Your task to perform on an android device: Open Chrome and go to settings Image 0: 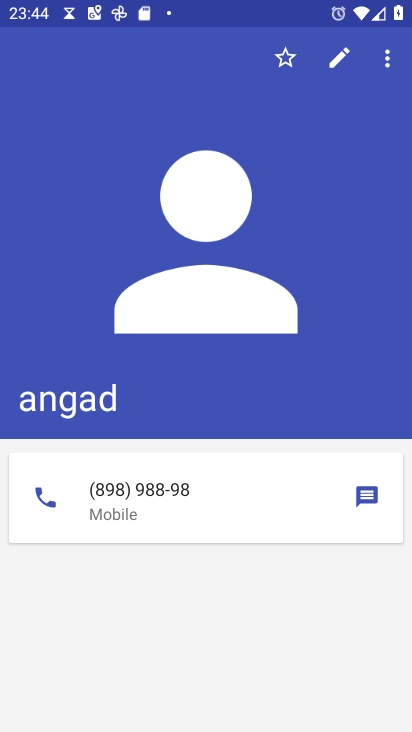
Step 0: press home button
Your task to perform on an android device: Open Chrome and go to settings Image 1: 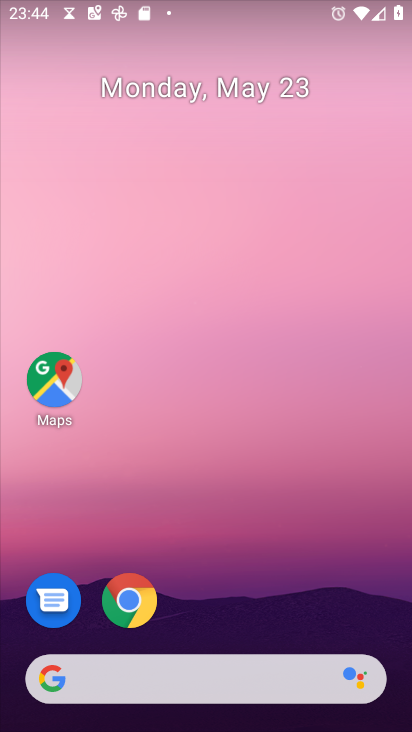
Step 1: click (128, 602)
Your task to perform on an android device: Open Chrome and go to settings Image 2: 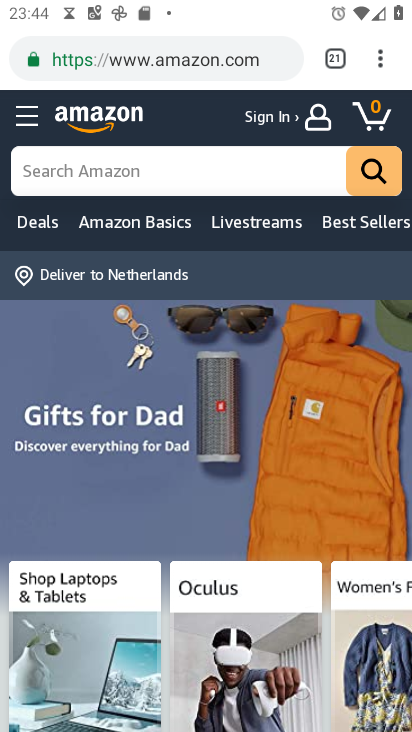
Step 2: click (380, 67)
Your task to perform on an android device: Open Chrome and go to settings Image 3: 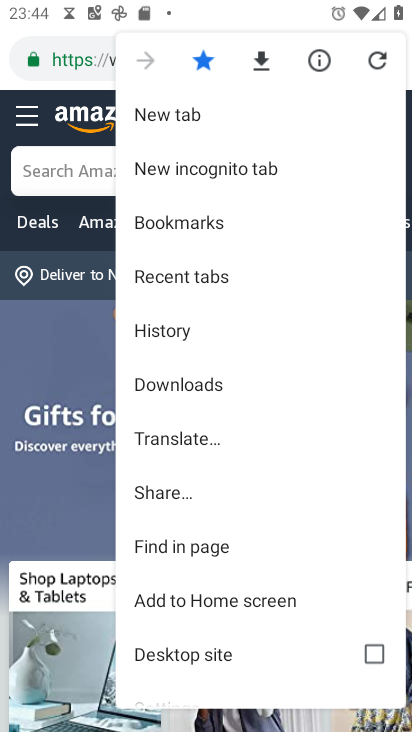
Step 3: drag from (231, 640) to (228, 301)
Your task to perform on an android device: Open Chrome and go to settings Image 4: 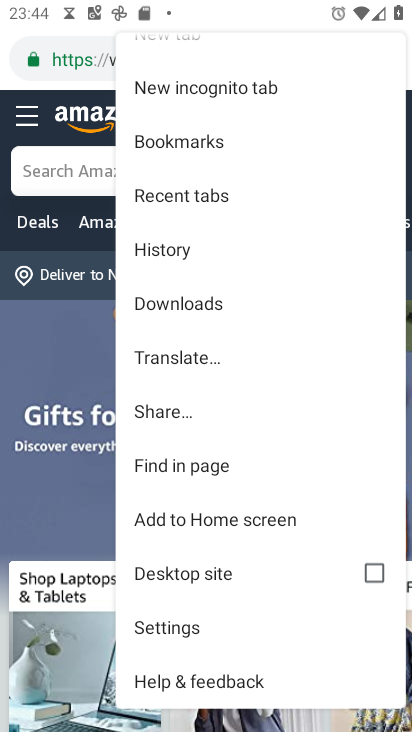
Step 4: click (187, 627)
Your task to perform on an android device: Open Chrome and go to settings Image 5: 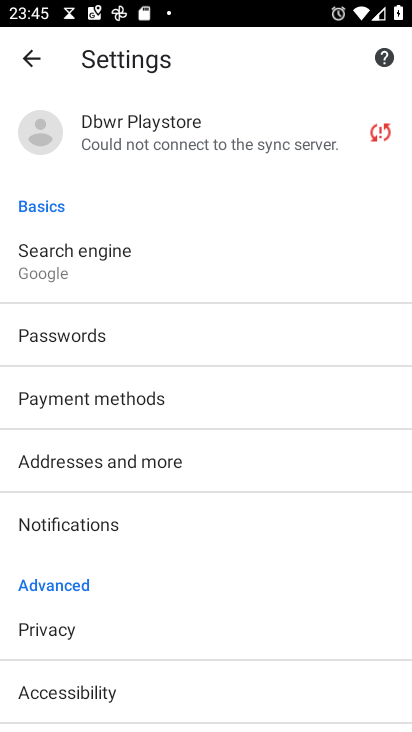
Step 5: task complete